Your task to perform on an android device: Open Google Maps and go to "Timeline" Image 0: 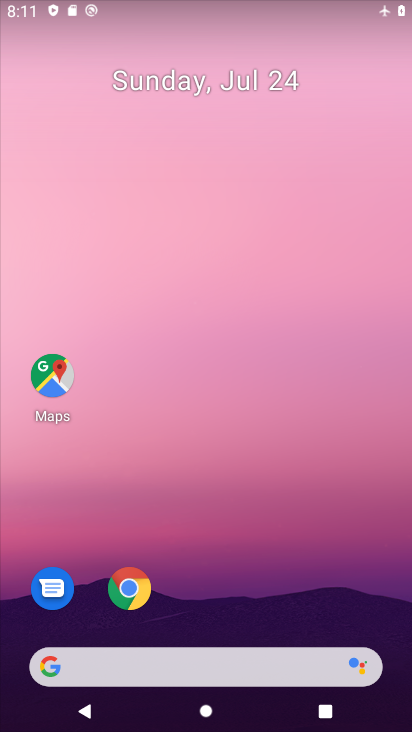
Step 0: click (47, 389)
Your task to perform on an android device: Open Google Maps and go to "Timeline" Image 1: 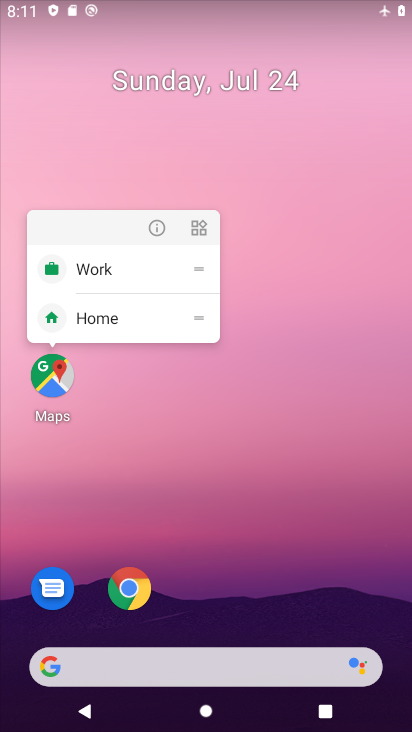
Step 1: click (277, 378)
Your task to perform on an android device: Open Google Maps and go to "Timeline" Image 2: 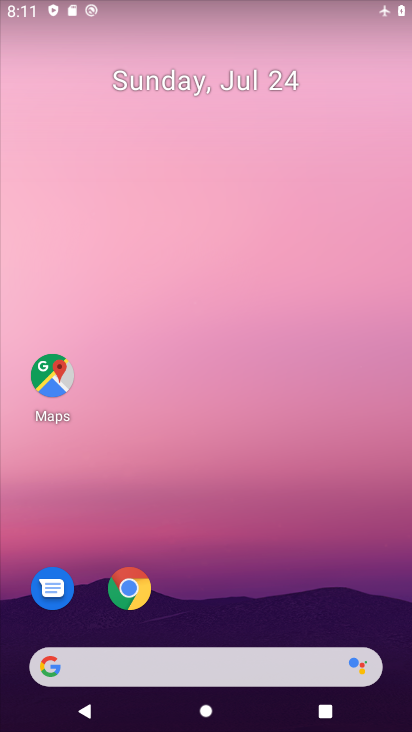
Step 2: click (45, 378)
Your task to perform on an android device: Open Google Maps and go to "Timeline" Image 3: 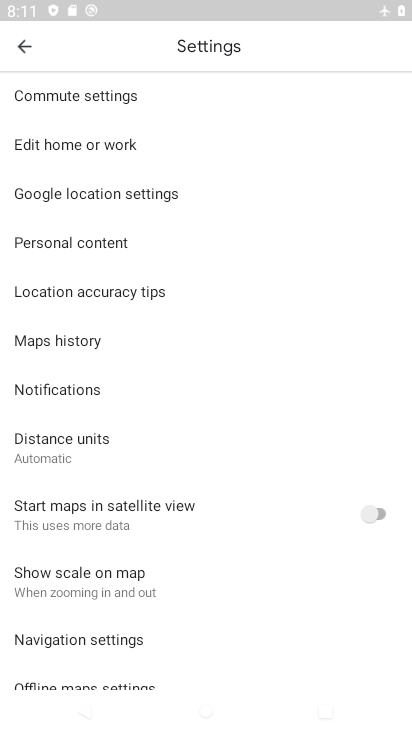
Step 3: click (15, 48)
Your task to perform on an android device: Open Google Maps and go to "Timeline" Image 4: 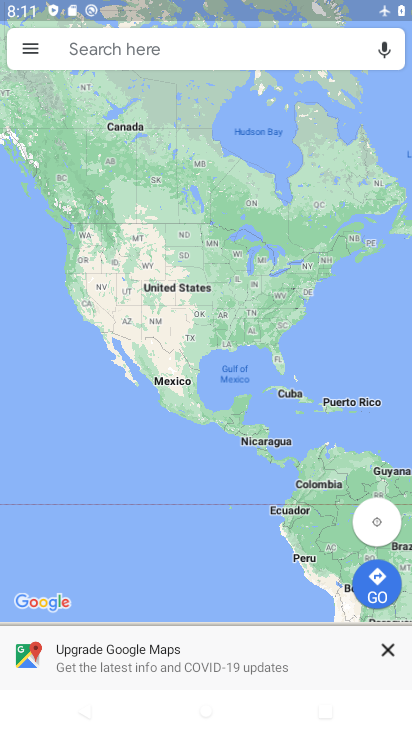
Step 4: click (97, 15)
Your task to perform on an android device: Open Google Maps and go to "Timeline" Image 5: 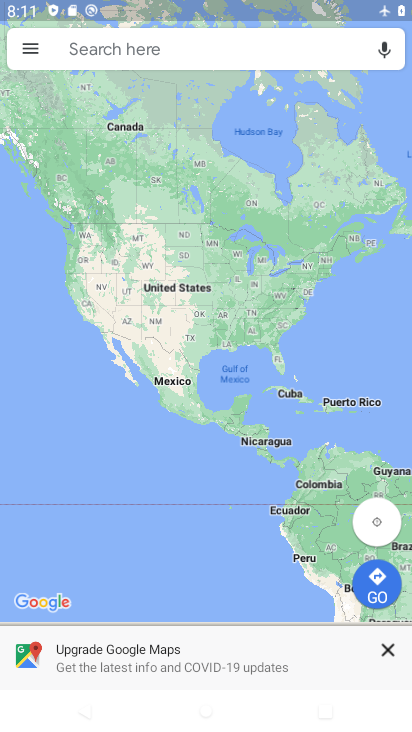
Step 5: click (203, 360)
Your task to perform on an android device: Open Google Maps and go to "Timeline" Image 6: 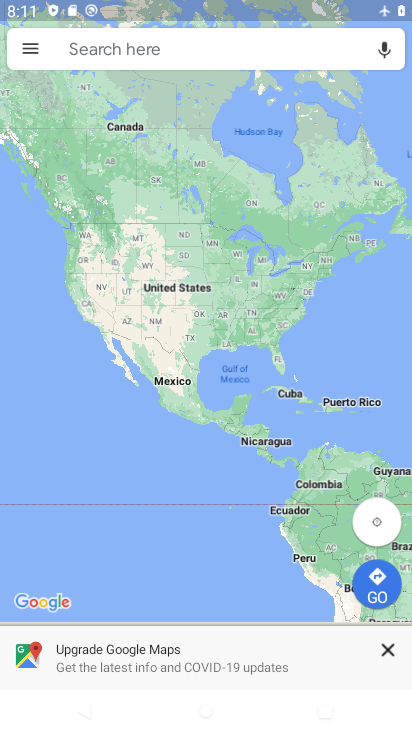
Step 6: click (26, 43)
Your task to perform on an android device: Open Google Maps and go to "Timeline" Image 7: 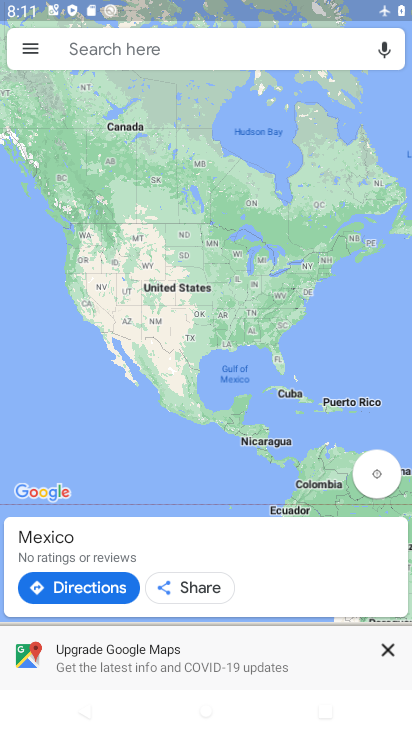
Step 7: click (29, 50)
Your task to perform on an android device: Open Google Maps and go to "Timeline" Image 8: 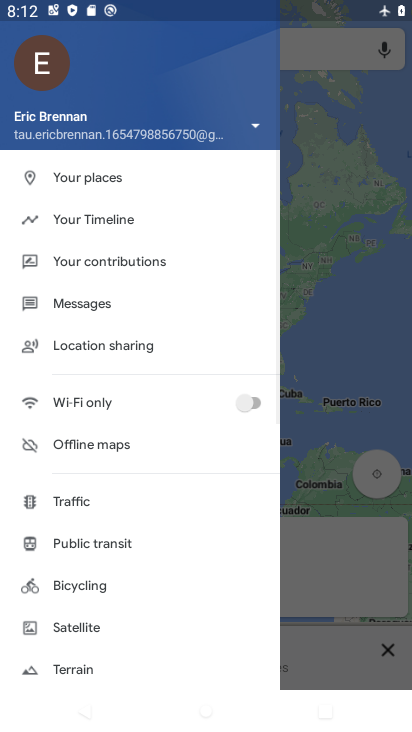
Step 8: click (124, 223)
Your task to perform on an android device: Open Google Maps and go to "Timeline" Image 9: 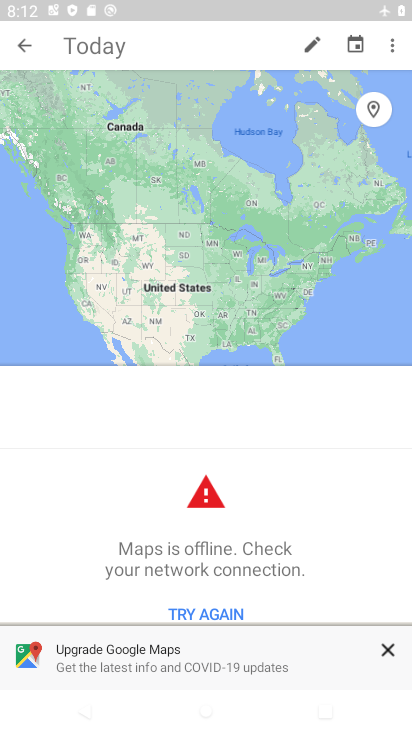
Step 9: click (386, 653)
Your task to perform on an android device: Open Google Maps and go to "Timeline" Image 10: 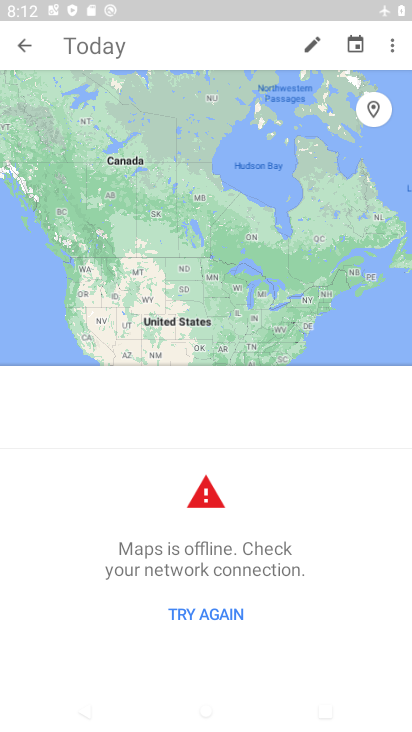
Step 10: task complete